Your task to perform on an android device: Search for vegetarian restaurants on Maps Image 0: 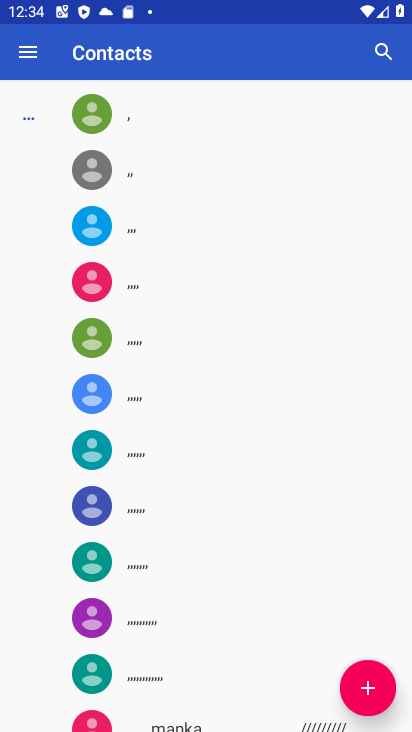
Step 0: task complete